Your task to perform on an android device: toggle pop-ups in chrome Image 0: 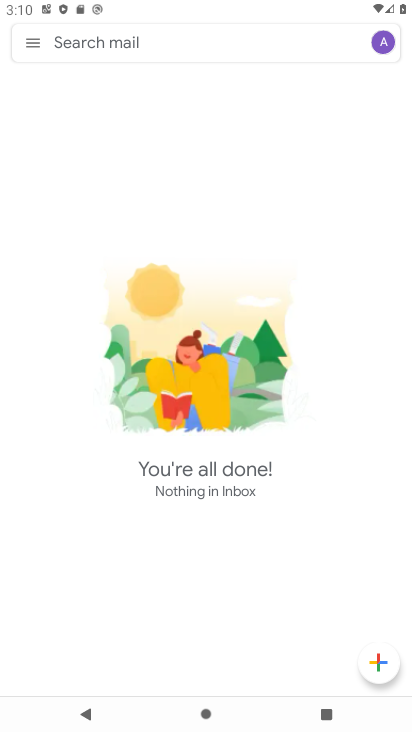
Step 0: press home button
Your task to perform on an android device: toggle pop-ups in chrome Image 1: 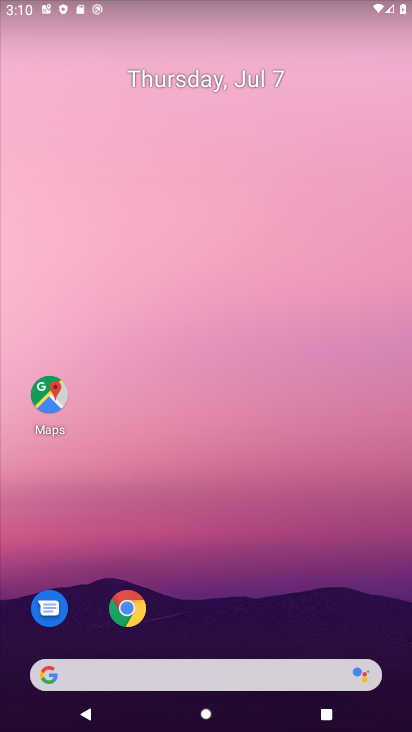
Step 1: click (125, 611)
Your task to perform on an android device: toggle pop-ups in chrome Image 2: 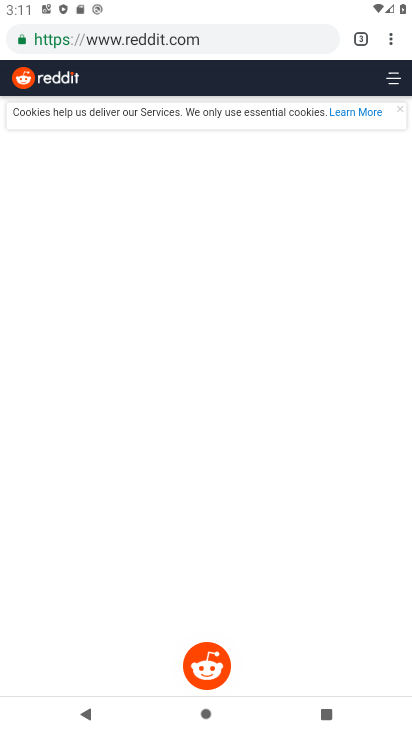
Step 2: click (392, 45)
Your task to perform on an android device: toggle pop-ups in chrome Image 3: 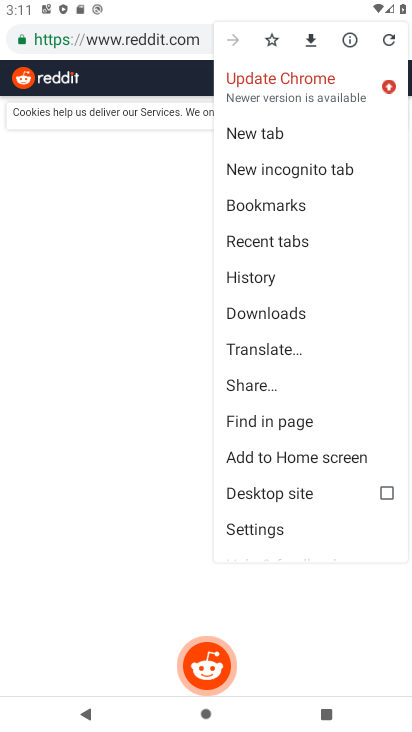
Step 3: click (260, 532)
Your task to perform on an android device: toggle pop-ups in chrome Image 4: 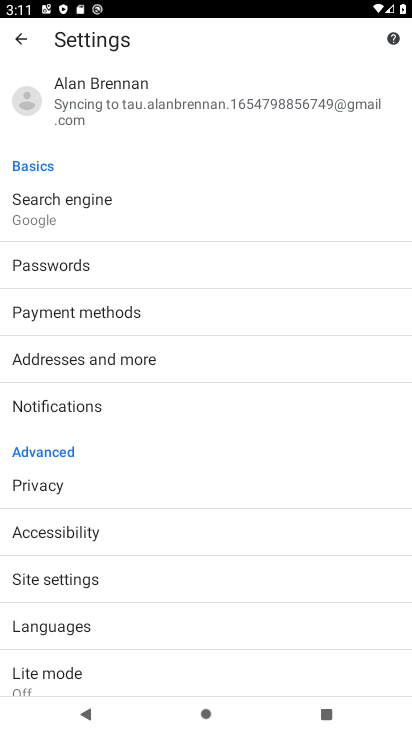
Step 4: click (56, 575)
Your task to perform on an android device: toggle pop-ups in chrome Image 5: 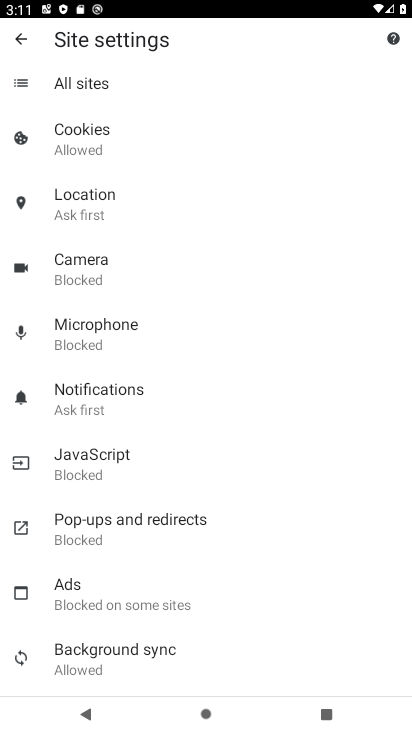
Step 5: click (85, 520)
Your task to perform on an android device: toggle pop-ups in chrome Image 6: 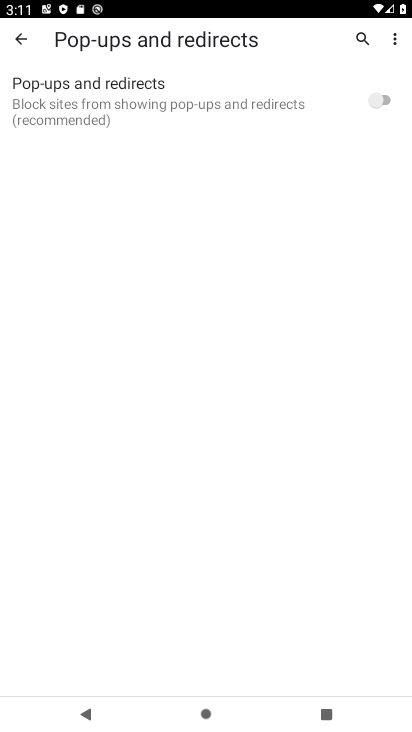
Step 6: click (388, 98)
Your task to perform on an android device: toggle pop-ups in chrome Image 7: 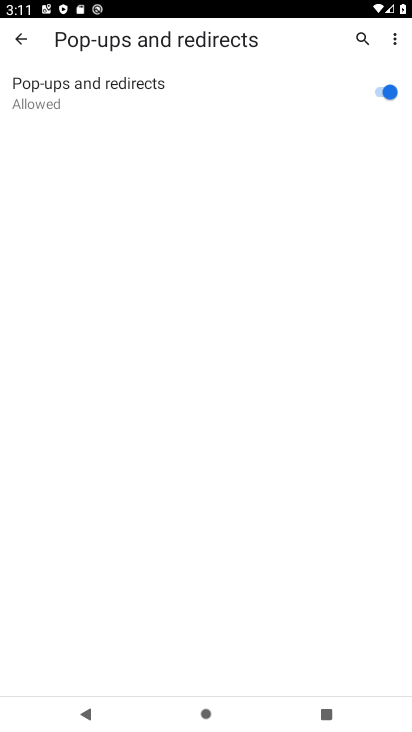
Step 7: task complete